Your task to perform on an android device: change timer sound Image 0: 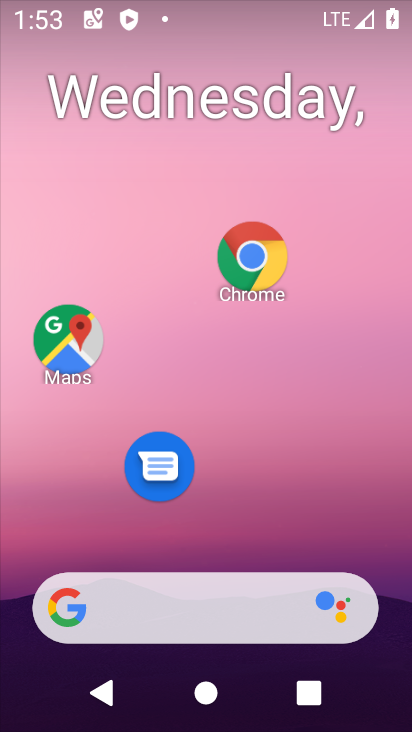
Step 0: drag from (209, 499) to (280, 256)
Your task to perform on an android device: change timer sound Image 1: 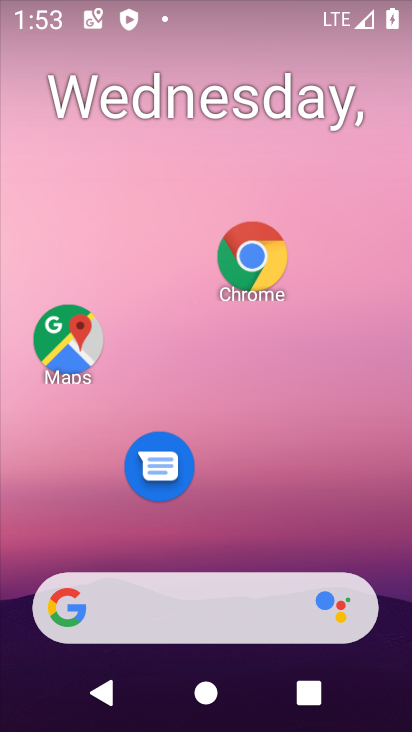
Step 1: drag from (282, 499) to (311, 71)
Your task to perform on an android device: change timer sound Image 2: 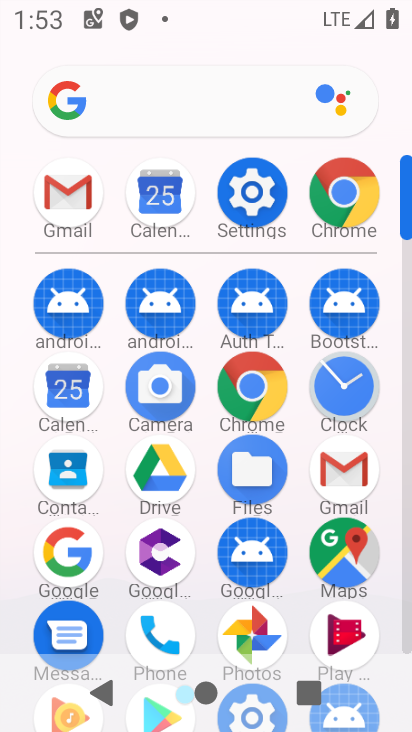
Step 2: click (255, 181)
Your task to perform on an android device: change timer sound Image 3: 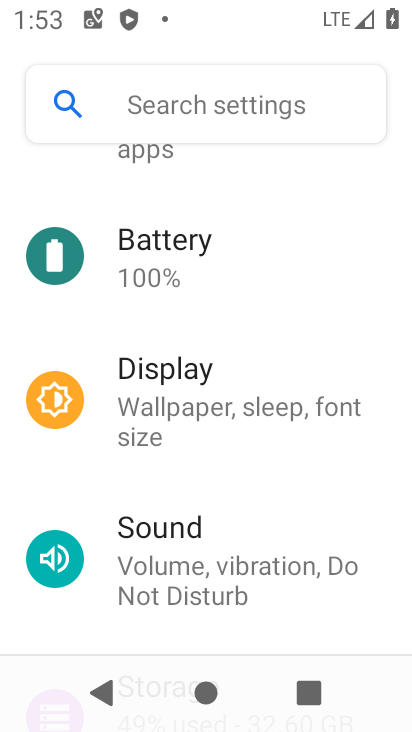
Step 3: click (159, 529)
Your task to perform on an android device: change timer sound Image 4: 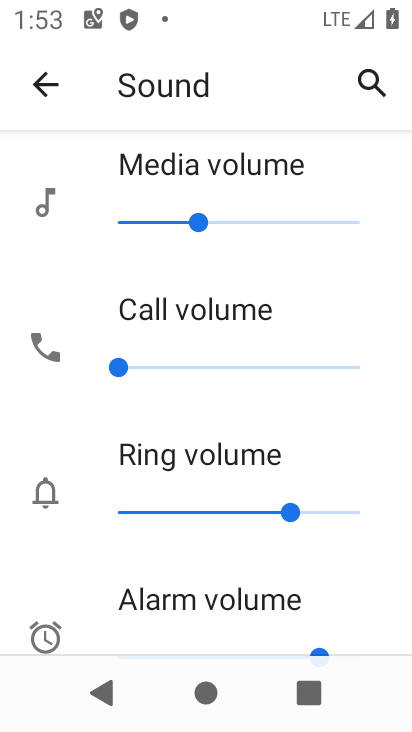
Step 4: task complete